Your task to perform on an android device: allow notifications from all sites in the chrome app Image 0: 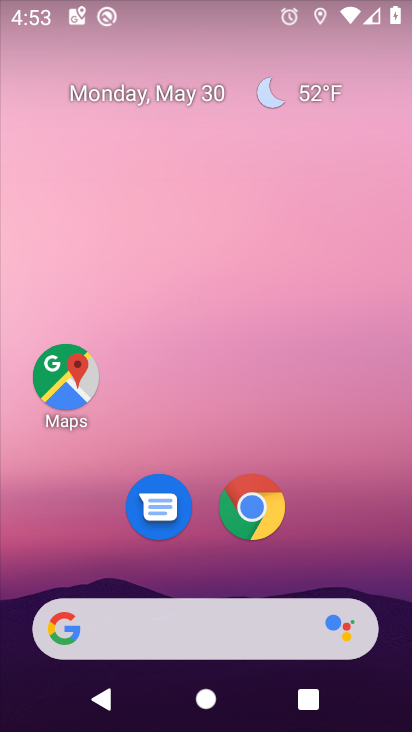
Step 0: press home button
Your task to perform on an android device: allow notifications from all sites in the chrome app Image 1: 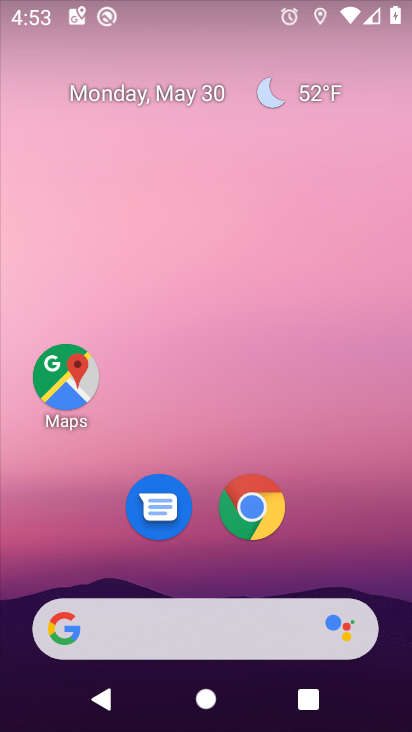
Step 1: drag from (323, 558) to (351, 66)
Your task to perform on an android device: allow notifications from all sites in the chrome app Image 2: 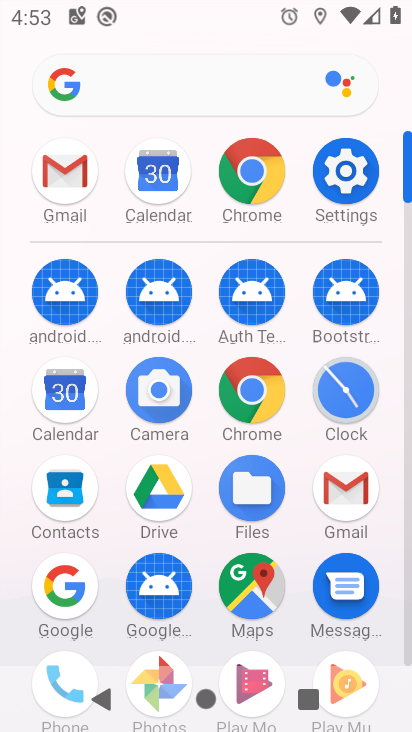
Step 2: click (232, 168)
Your task to perform on an android device: allow notifications from all sites in the chrome app Image 3: 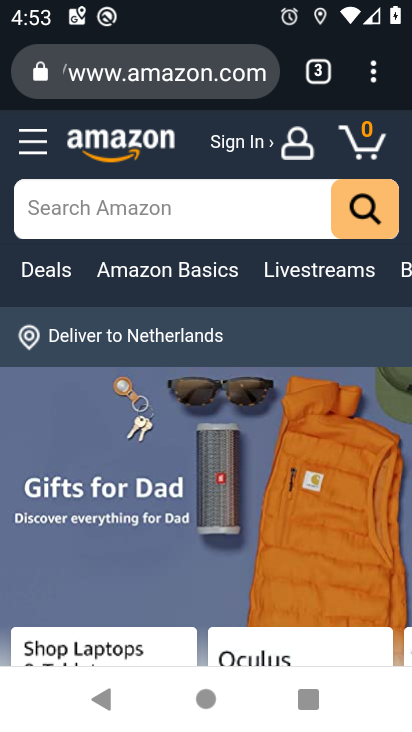
Step 3: drag from (368, 69) to (213, 489)
Your task to perform on an android device: allow notifications from all sites in the chrome app Image 4: 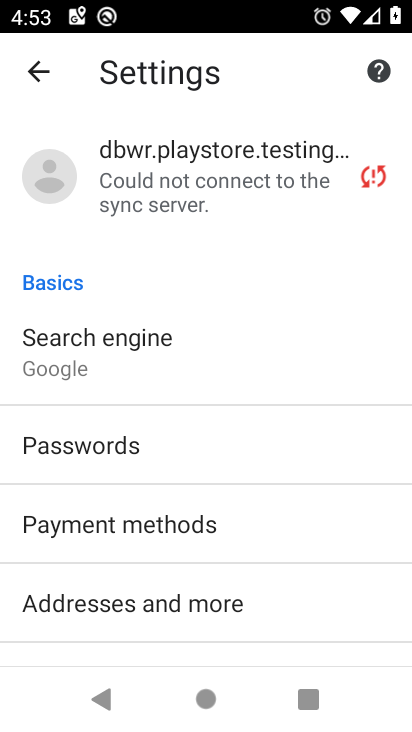
Step 4: drag from (196, 564) to (201, 39)
Your task to perform on an android device: allow notifications from all sites in the chrome app Image 5: 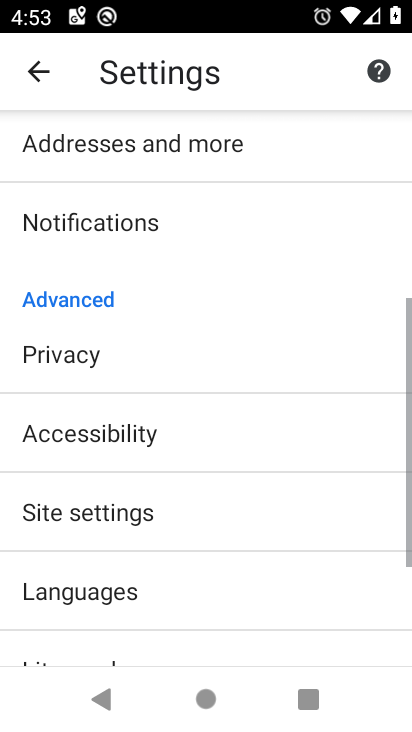
Step 5: click (115, 618)
Your task to perform on an android device: allow notifications from all sites in the chrome app Image 6: 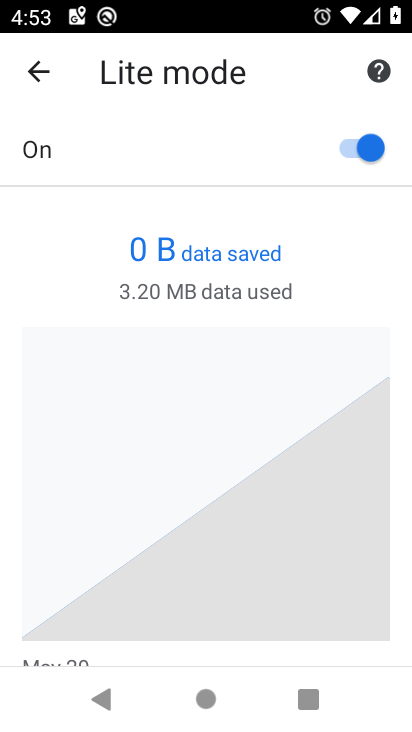
Step 6: click (19, 72)
Your task to perform on an android device: allow notifications from all sites in the chrome app Image 7: 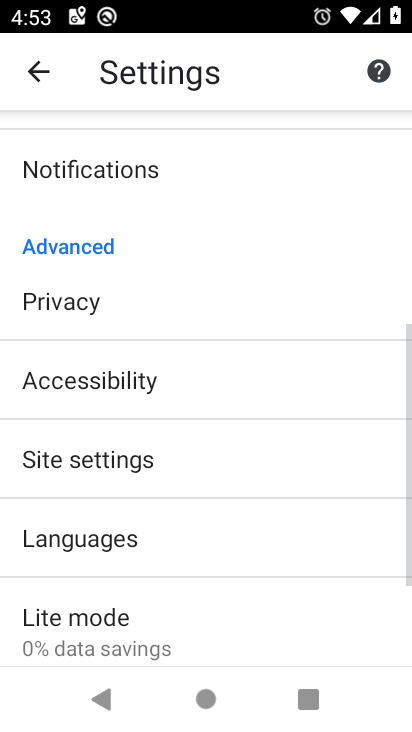
Step 7: click (57, 462)
Your task to perform on an android device: allow notifications from all sites in the chrome app Image 8: 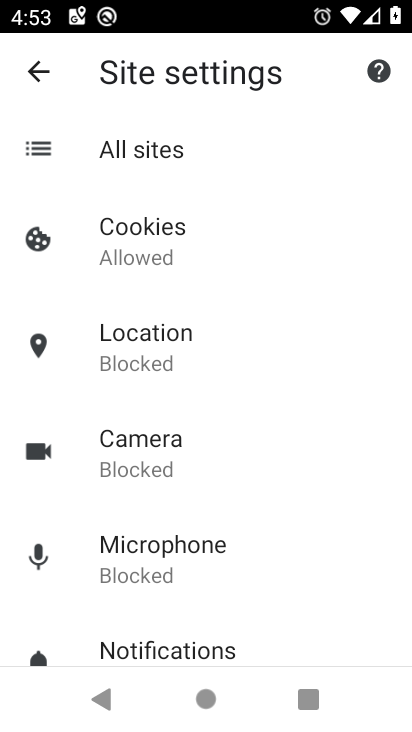
Step 8: click (250, 160)
Your task to perform on an android device: allow notifications from all sites in the chrome app Image 9: 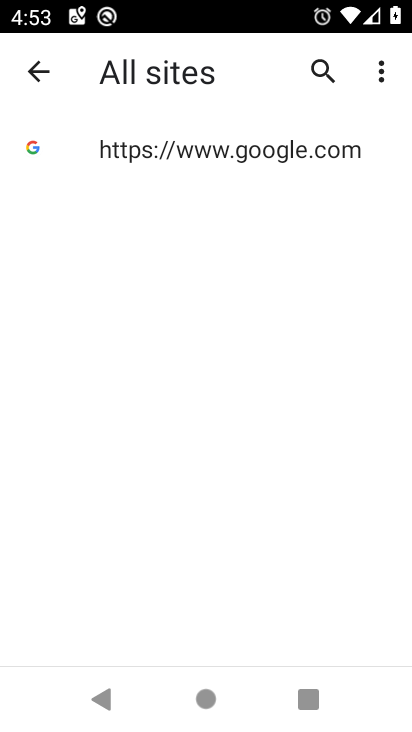
Step 9: click (250, 160)
Your task to perform on an android device: allow notifications from all sites in the chrome app Image 10: 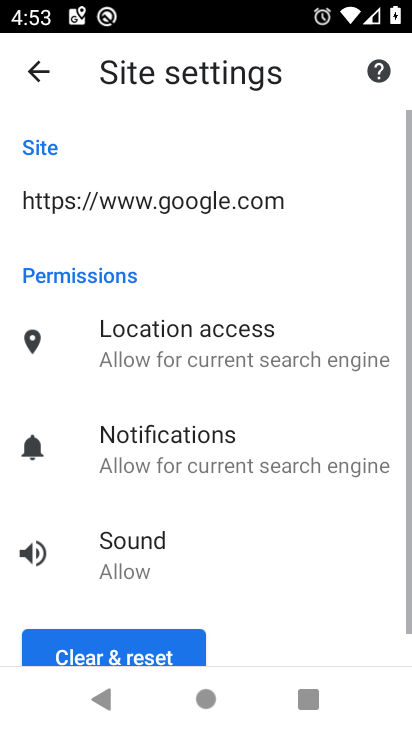
Step 10: click (243, 457)
Your task to perform on an android device: allow notifications from all sites in the chrome app Image 11: 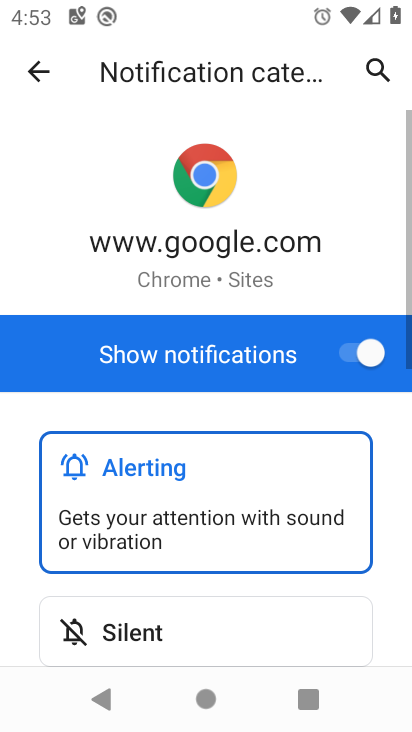
Step 11: drag from (243, 457) to (281, 46)
Your task to perform on an android device: allow notifications from all sites in the chrome app Image 12: 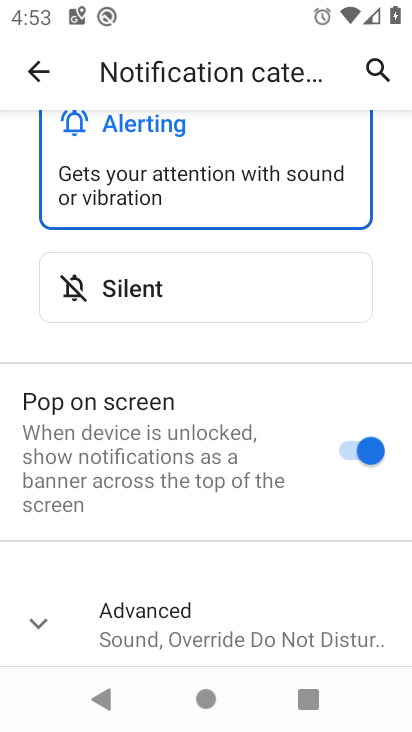
Step 12: drag from (267, 492) to (256, 202)
Your task to perform on an android device: allow notifications from all sites in the chrome app Image 13: 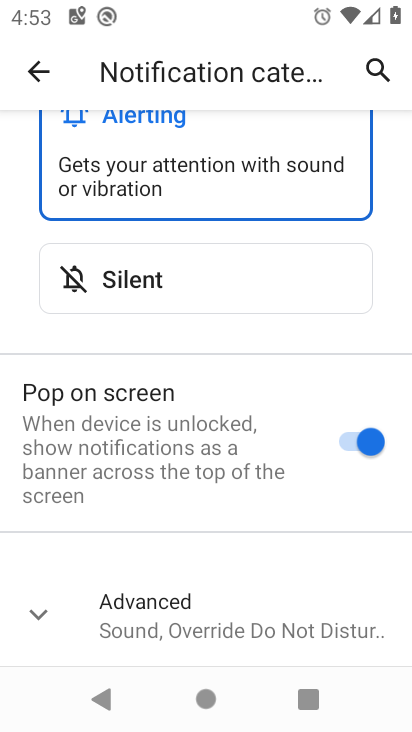
Step 13: click (224, 586)
Your task to perform on an android device: allow notifications from all sites in the chrome app Image 14: 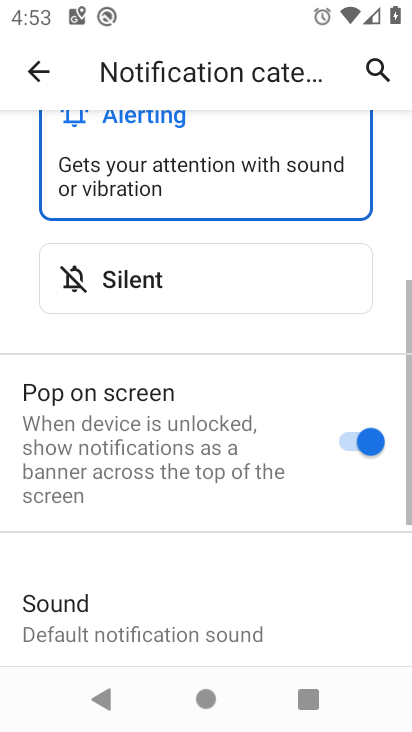
Step 14: task complete